Your task to perform on an android device: set the timer Image 0: 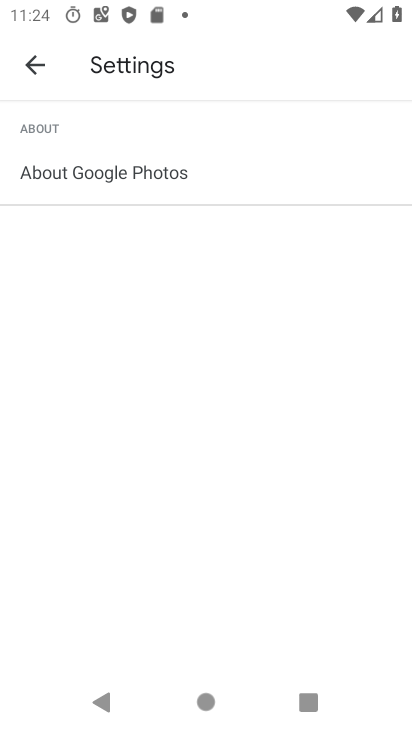
Step 0: press home button
Your task to perform on an android device: set the timer Image 1: 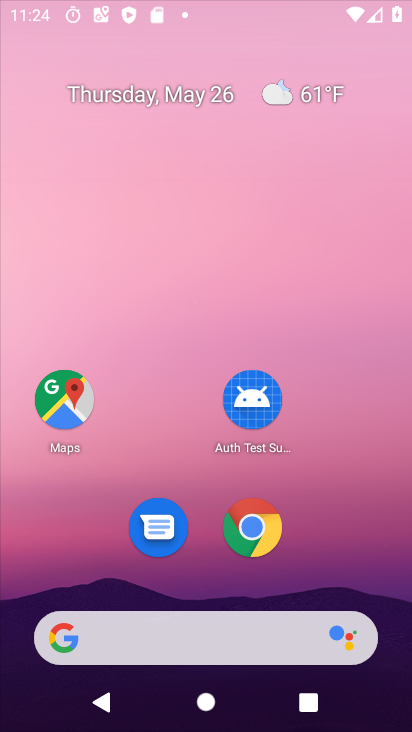
Step 1: drag from (330, 540) to (374, 60)
Your task to perform on an android device: set the timer Image 2: 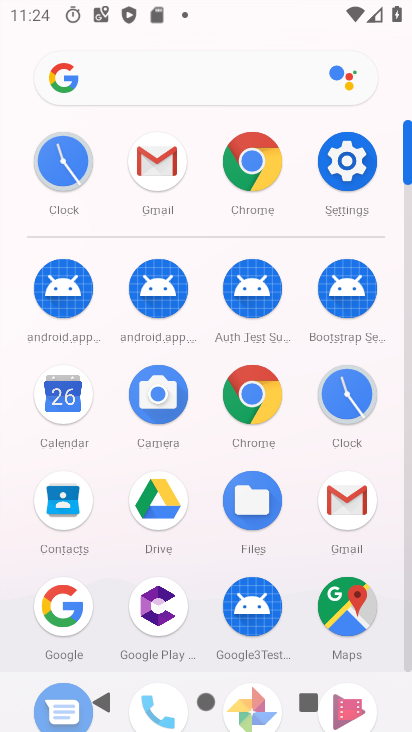
Step 2: click (340, 390)
Your task to perform on an android device: set the timer Image 3: 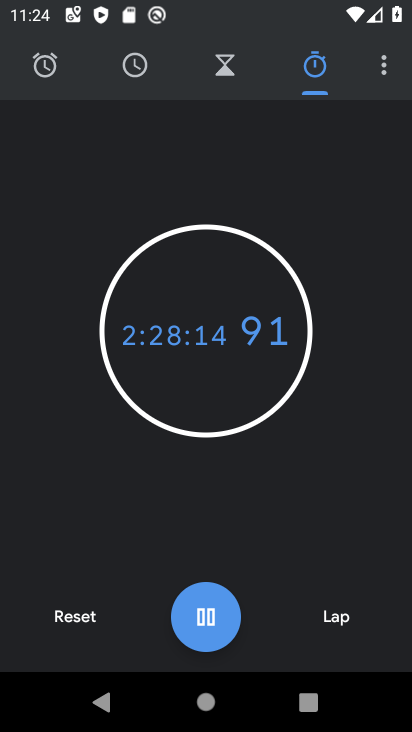
Step 3: click (206, 70)
Your task to perform on an android device: set the timer Image 4: 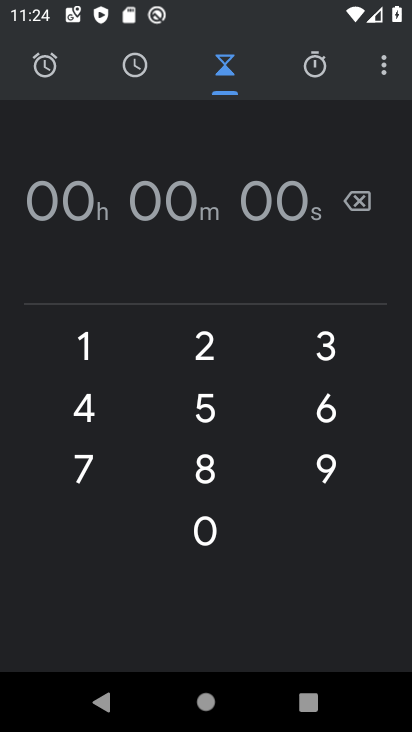
Step 4: click (206, 351)
Your task to perform on an android device: set the timer Image 5: 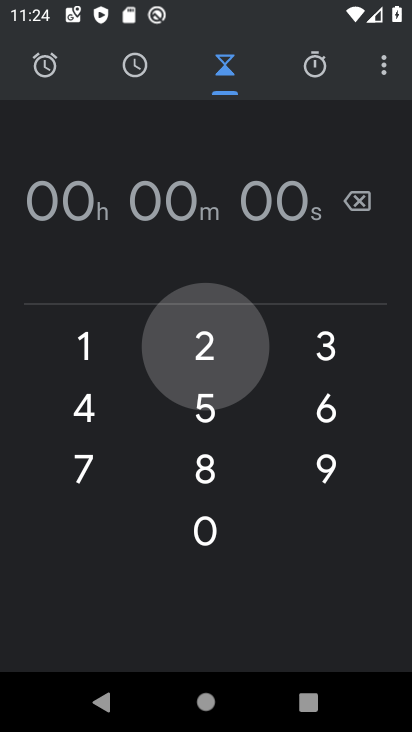
Step 5: drag from (217, 409) to (209, 375)
Your task to perform on an android device: set the timer Image 6: 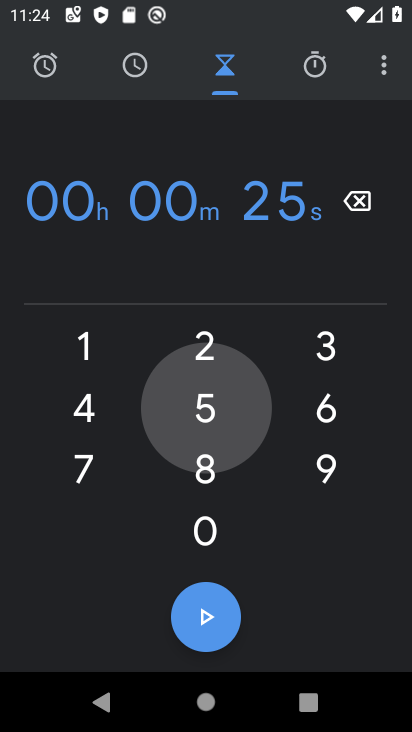
Step 6: click (209, 346)
Your task to perform on an android device: set the timer Image 7: 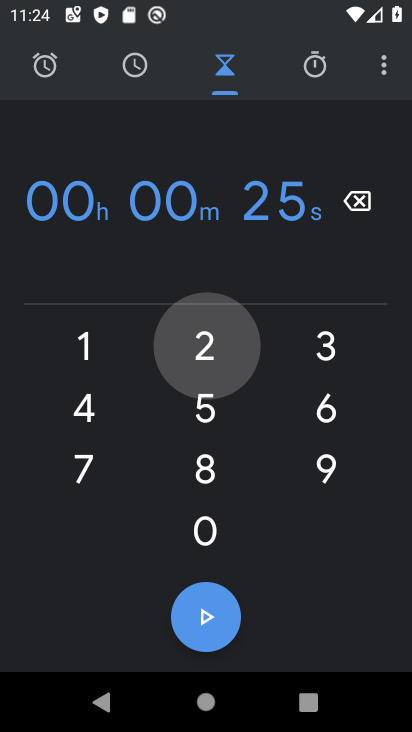
Step 7: drag from (202, 421) to (205, 386)
Your task to perform on an android device: set the timer Image 8: 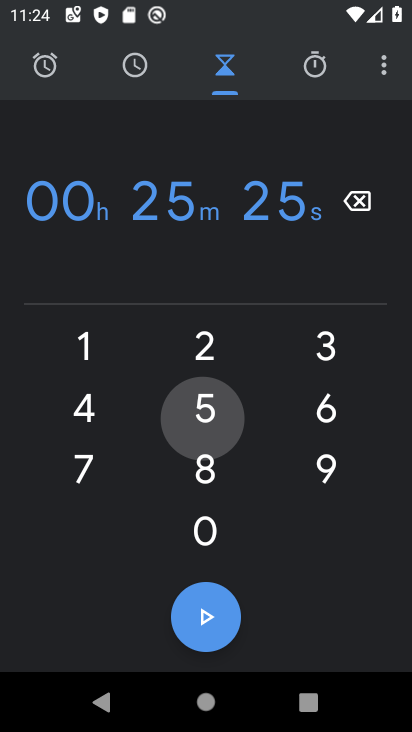
Step 8: click (205, 355)
Your task to perform on an android device: set the timer Image 9: 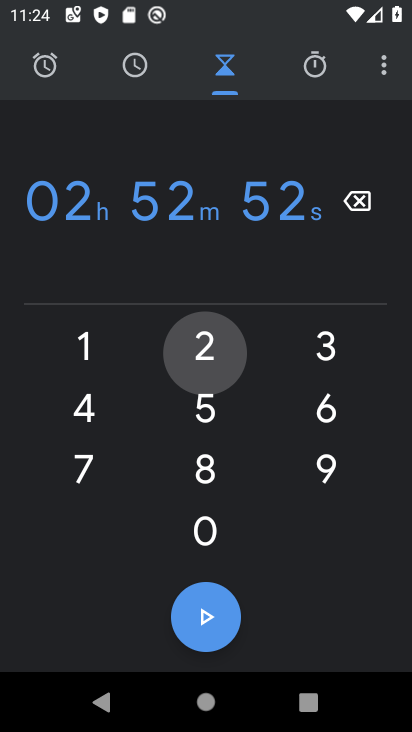
Step 9: click (214, 426)
Your task to perform on an android device: set the timer Image 10: 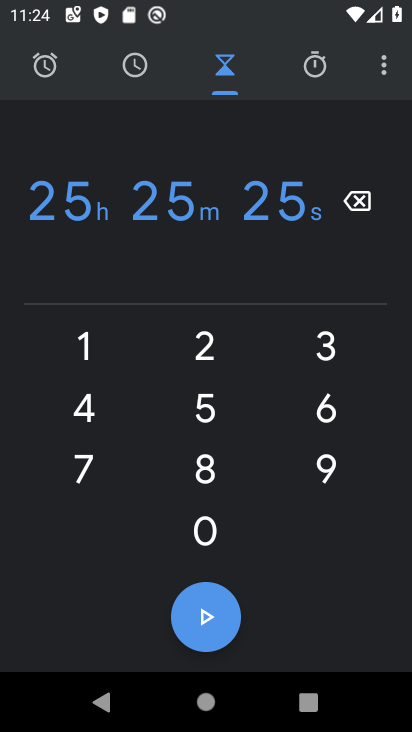
Step 10: click (212, 621)
Your task to perform on an android device: set the timer Image 11: 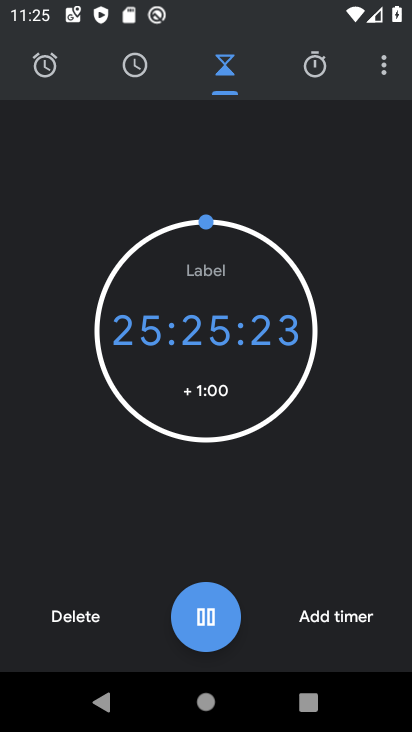
Step 11: task complete